Your task to perform on an android device: turn notification dots off Image 0: 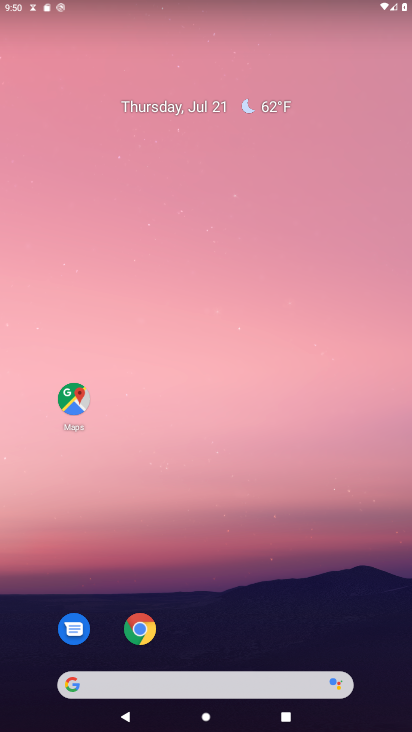
Step 0: drag from (243, 643) to (215, 337)
Your task to perform on an android device: turn notification dots off Image 1: 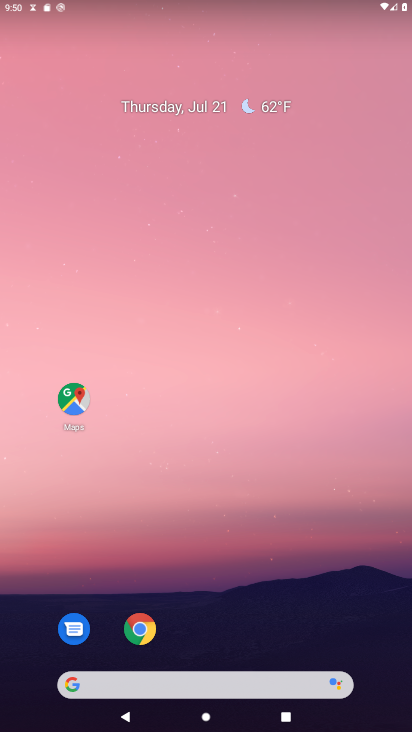
Step 1: drag from (243, 616) to (185, 329)
Your task to perform on an android device: turn notification dots off Image 2: 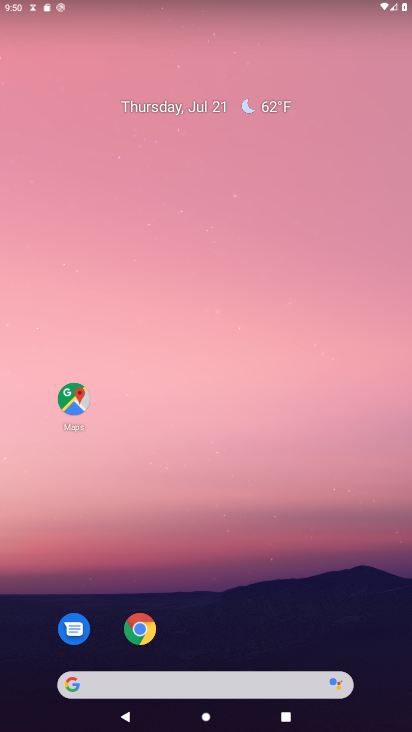
Step 2: drag from (217, 640) to (207, 186)
Your task to perform on an android device: turn notification dots off Image 3: 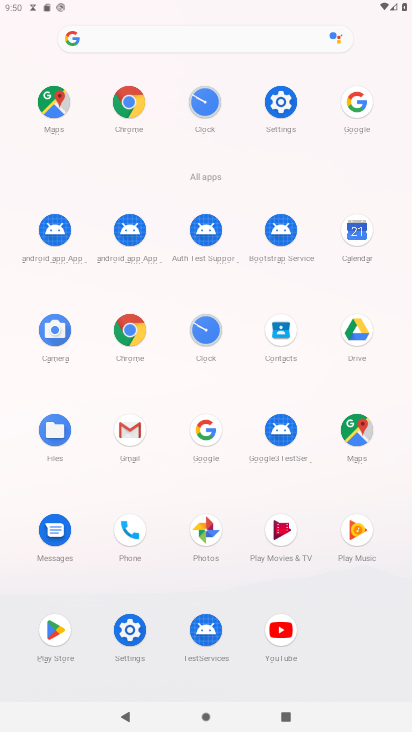
Step 3: click (291, 96)
Your task to perform on an android device: turn notification dots off Image 4: 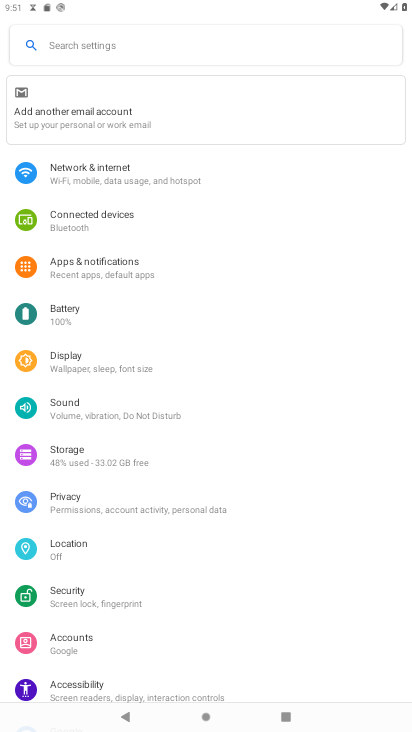
Step 4: click (153, 31)
Your task to perform on an android device: turn notification dots off Image 5: 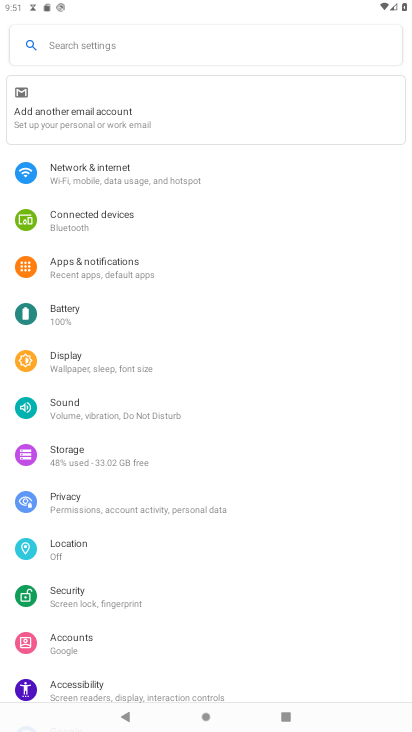
Step 5: click (157, 31)
Your task to perform on an android device: turn notification dots off Image 6: 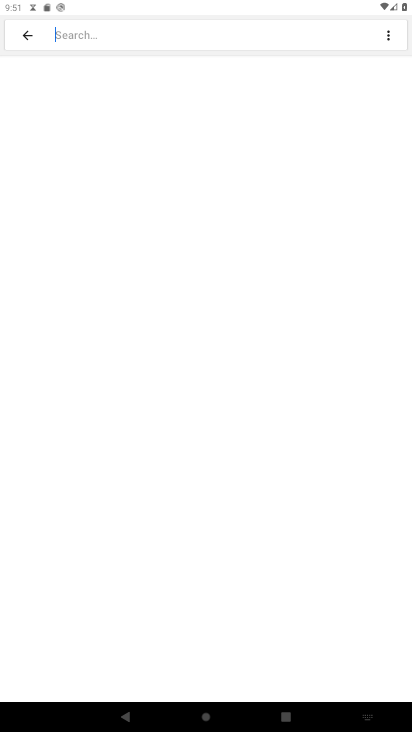
Step 6: type "notification dots "
Your task to perform on an android device: turn notification dots off Image 7: 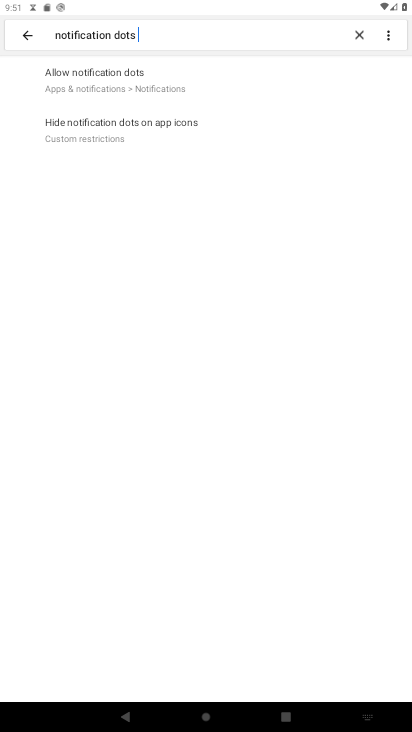
Step 7: task complete